Your task to perform on an android device: Go to display settings Image 0: 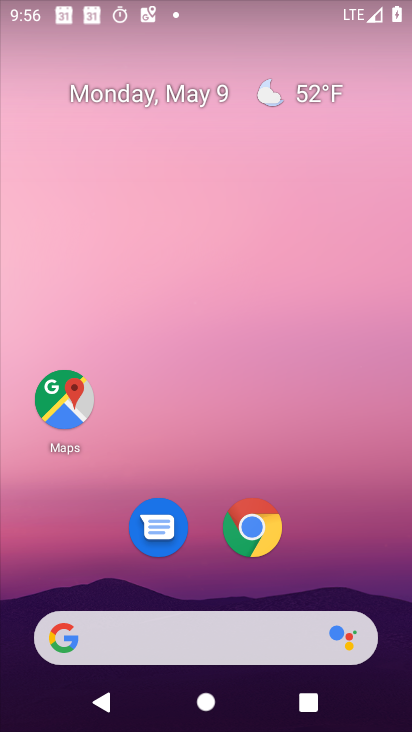
Step 0: drag from (397, 563) to (358, 189)
Your task to perform on an android device: Go to display settings Image 1: 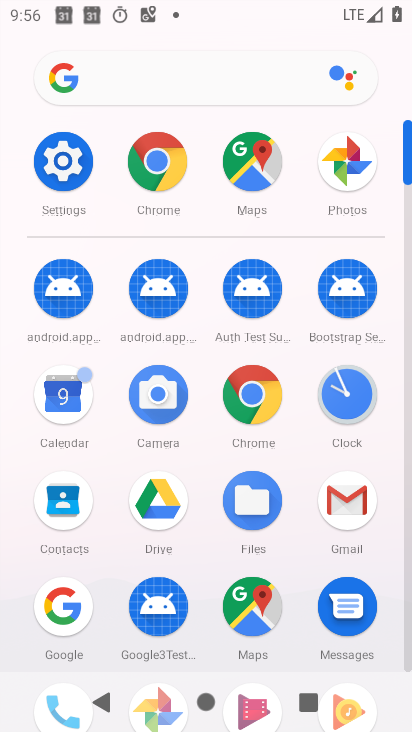
Step 1: click (61, 156)
Your task to perform on an android device: Go to display settings Image 2: 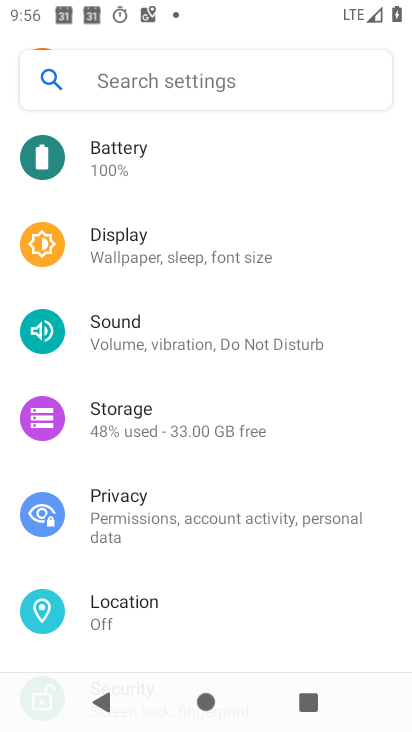
Step 2: click (174, 236)
Your task to perform on an android device: Go to display settings Image 3: 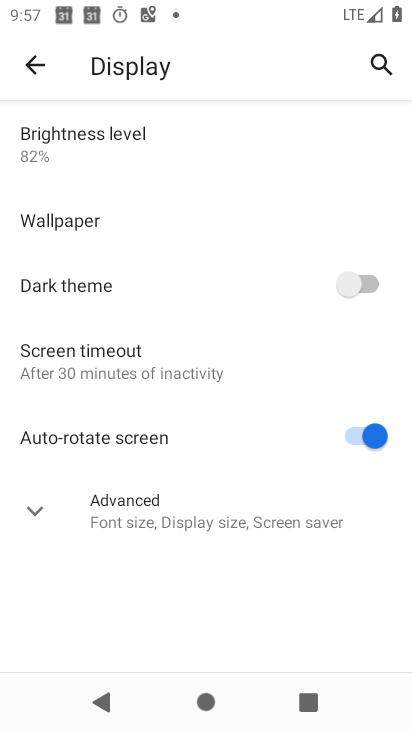
Step 3: task complete